Your task to perform on an android device: open app "Life360: Find Family & Friends" Image 0: 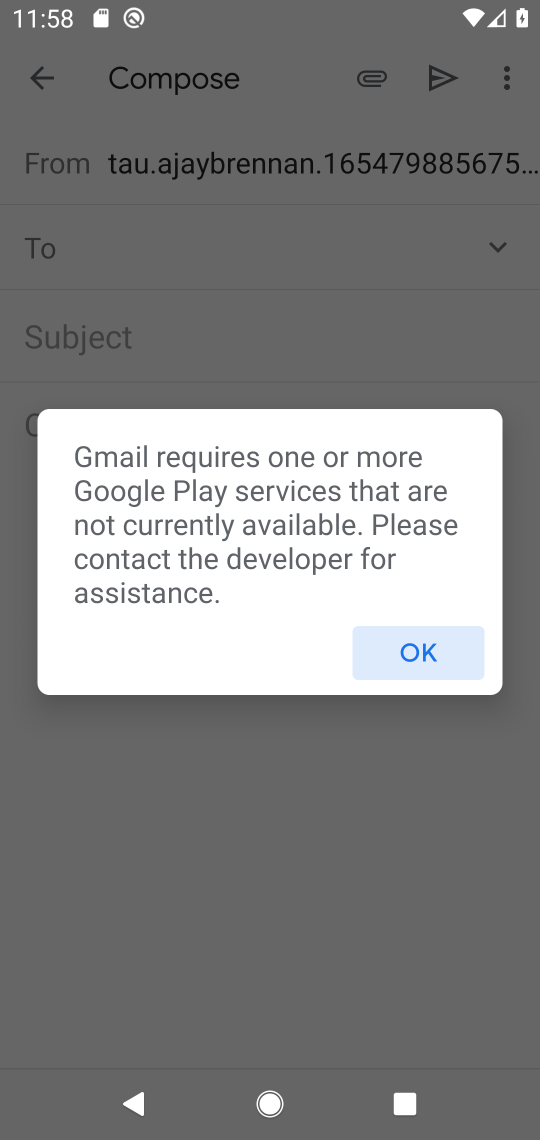
Step 0: click (414, 659)
Your task to perform on an android device: open app "Life360: Find Family & Friends" Image 1: 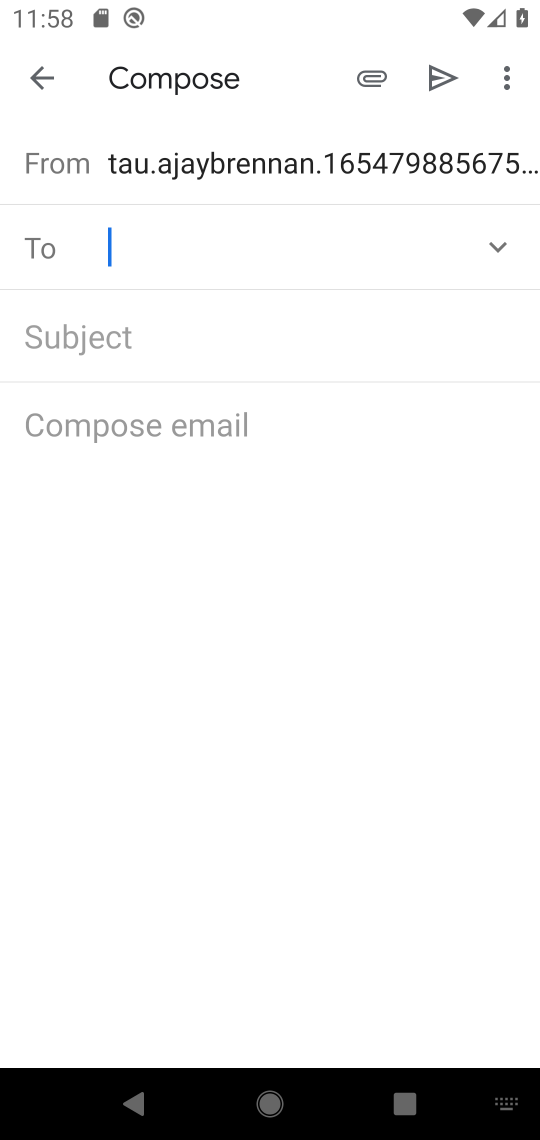
Step 1: press home button
Your task to perform on an android device: open app "Life360: Find Family & Friends" Image 2: 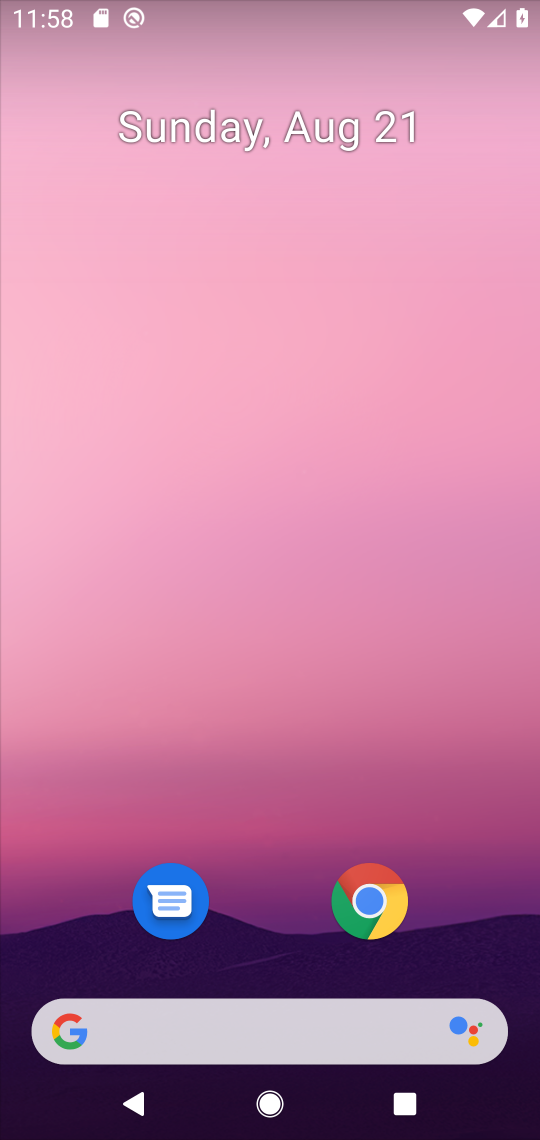
Step 2: drag from (257, 984) to (302, 274)
Your task to perform on an android device: open app "Life360: Find Family & Friends" Image 3: 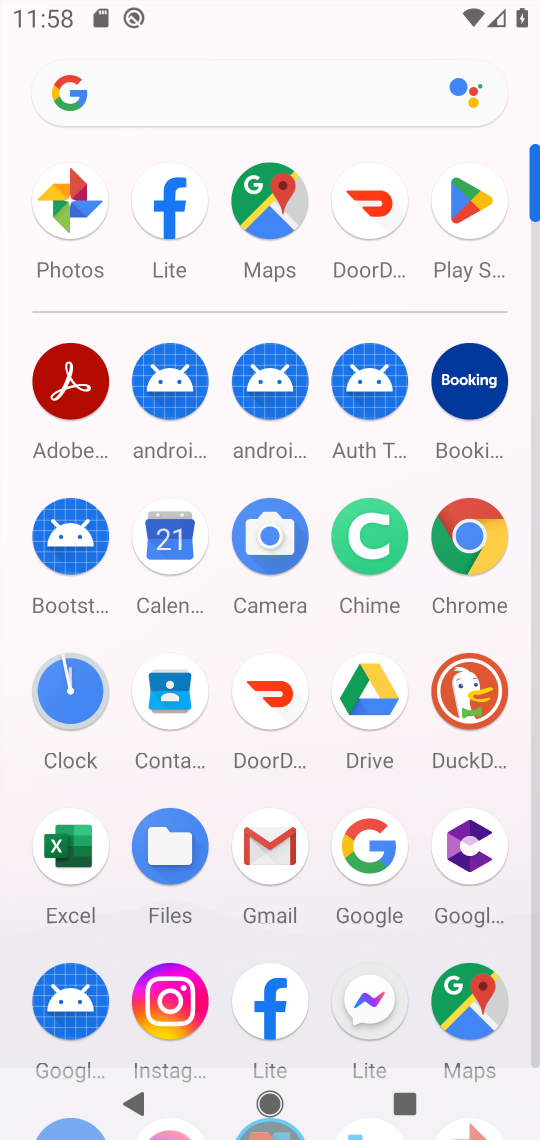
Step 3: click (479, 224)
Your task to perform on an android device: open app "Life360: Find Family & Friends" Image 4: 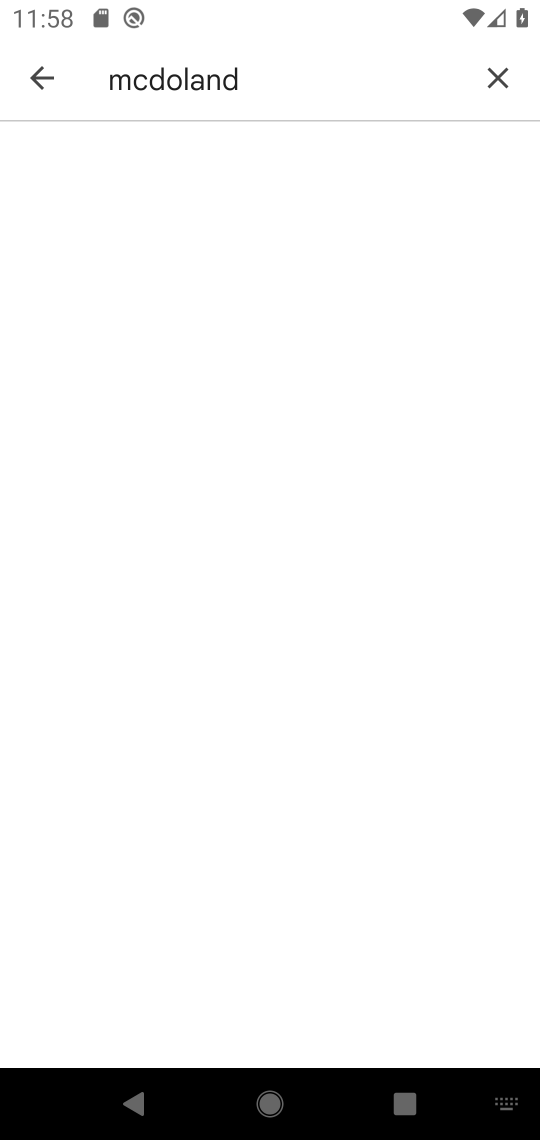
Step 4: click (498, 91)
Your task to perform on an android device: open app "Life360: Find Family & Friends" Image 5: 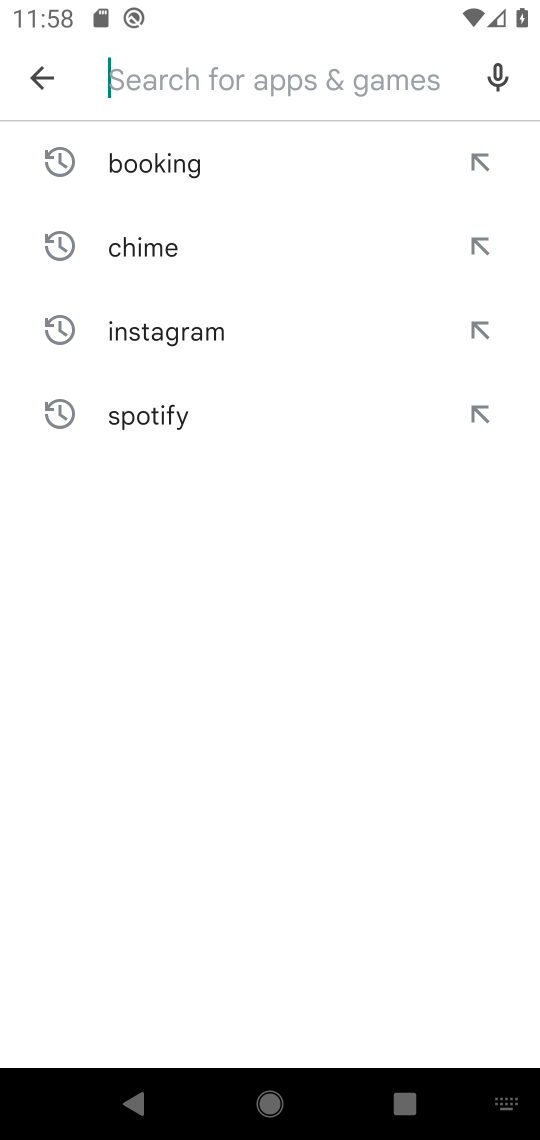
Step 5: type "life360"
Your task to perform on an android device: open app "Life360: Find Family & Friends" Image 6: 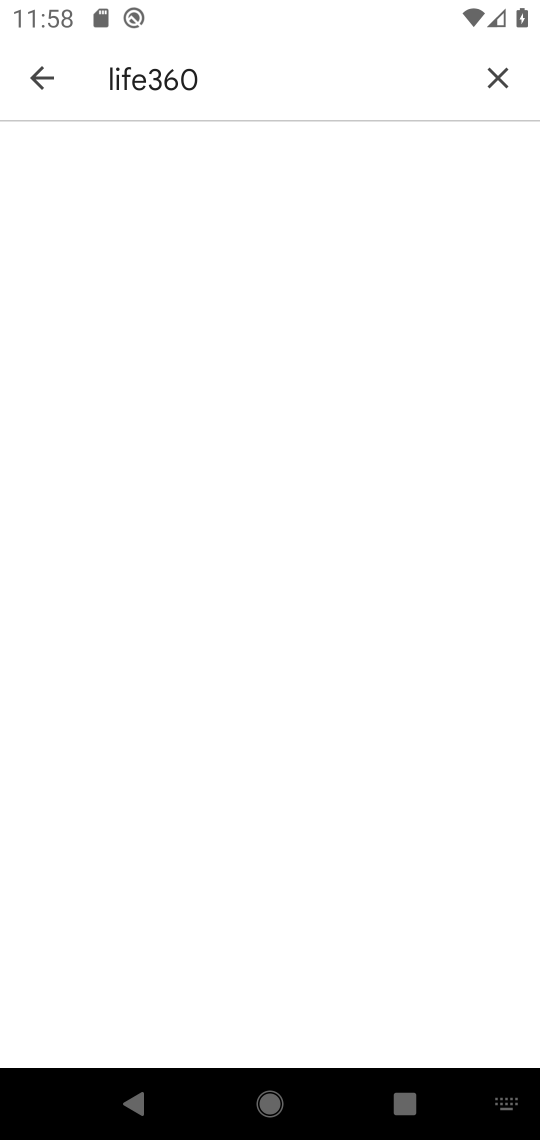
Step 6: task complete